Your task to perform on an android device: Show me recent news Image 0: 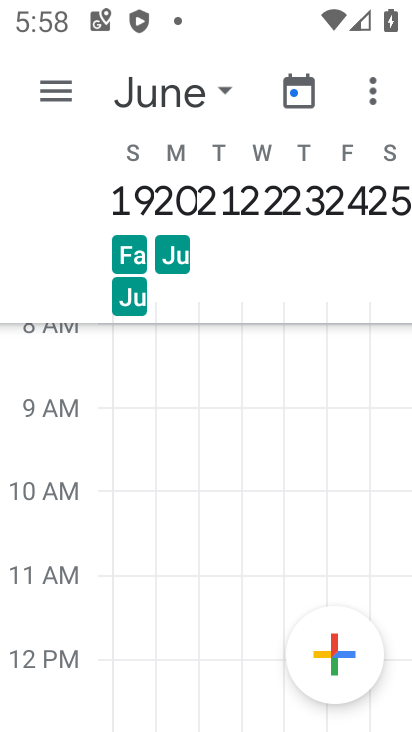
Step 0: press home button
Your task to perform on an android device: Show me recent news Image 1: 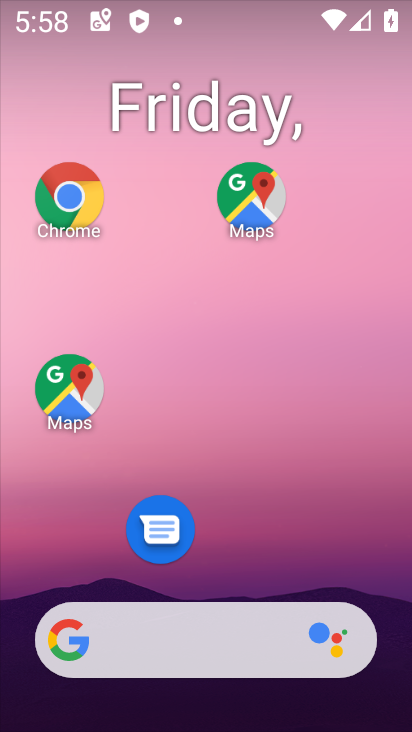
Step 1: drag from (242, 538) to (222, 125)
Your task to perform on an android device: Show me recent news Image 2: 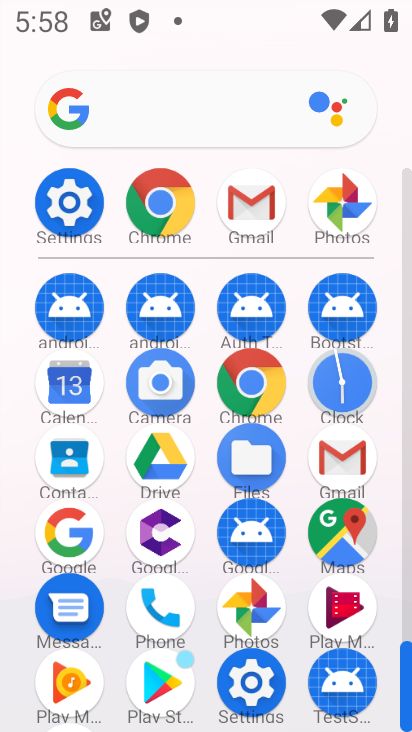
Step 2: click (73, 543)
Your task to perform on an android device: Show me recent news Image 3: 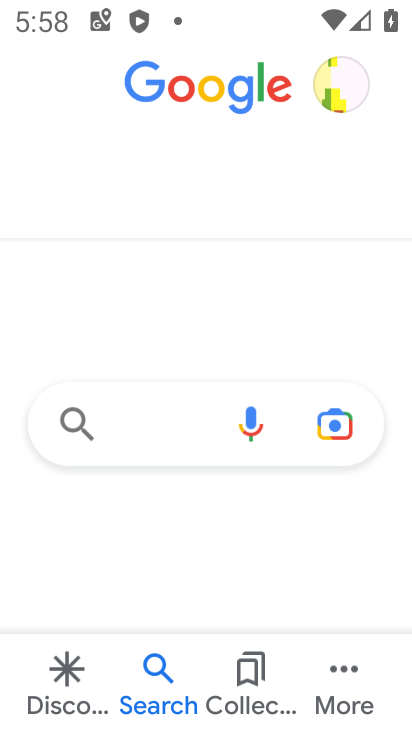
Step 3: click (137, 420)
Your task to perform on an android device: Show me recent news Image 4: 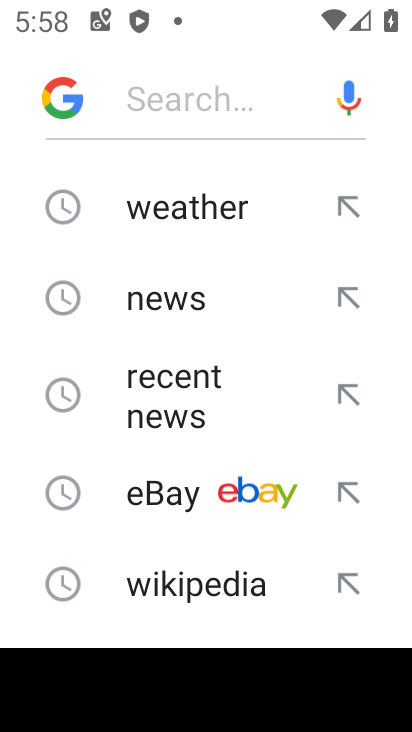
Step 4: click (188, 385)
Your task to perform on an android device: Show me recent news Image 5: 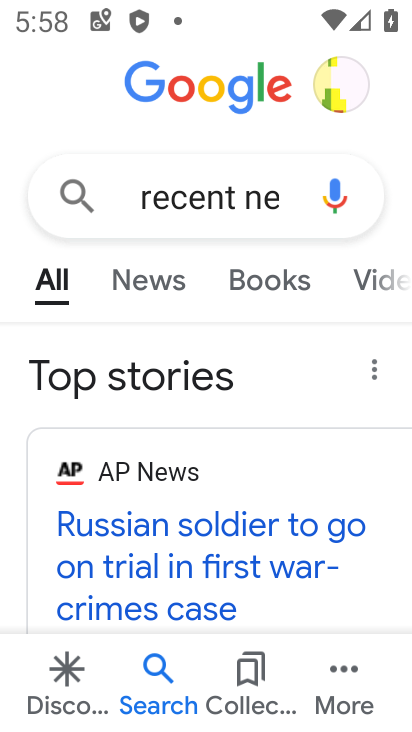
Step 5: task complete